Your task to perform on an android device: Go to Google Image 0: 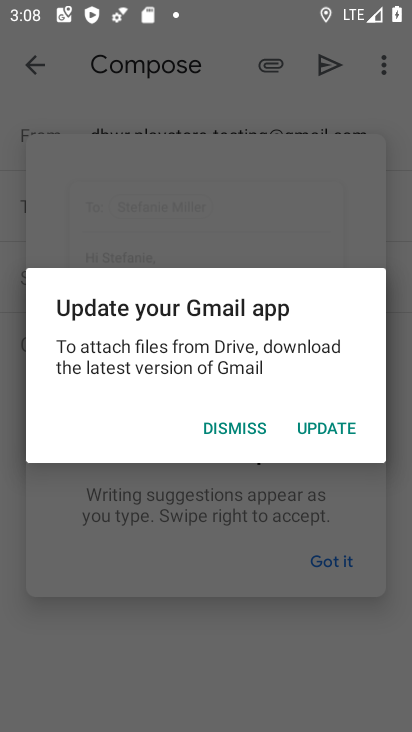
Step 0: press home button
Your task to perform on an android device: Go to Google Image 1: 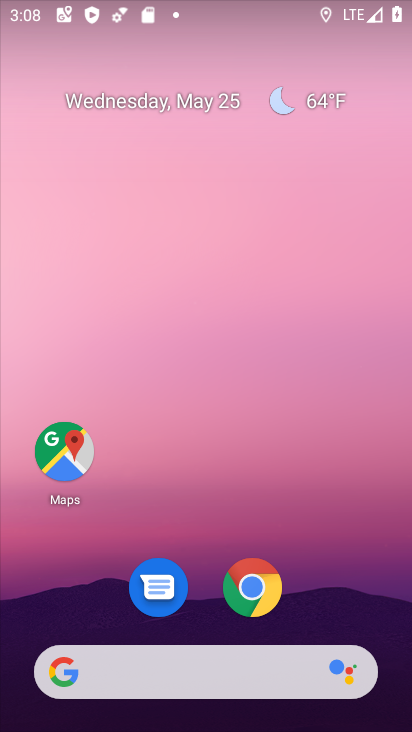
Step 1: drag from (339, 584) to (268, 224)
Your task to perform on an android device: Go to Google Image 2: 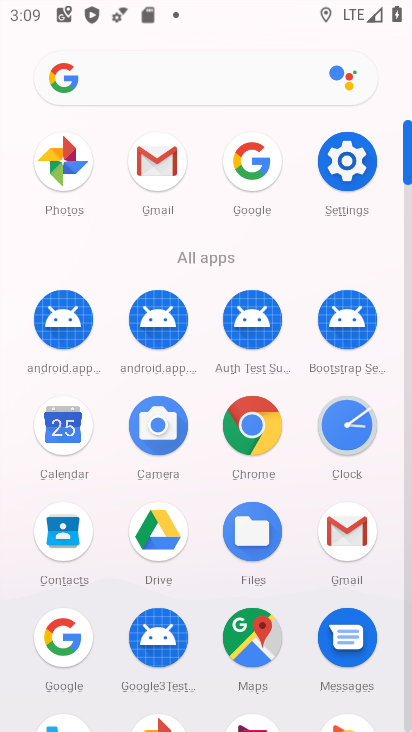
Step 2: click (76, 626)
Your task to perform on an android device: Go to Google Image 3: 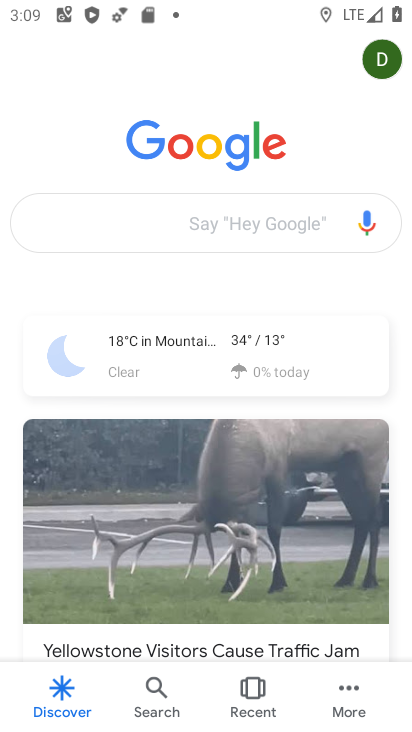
Step 3: task complete